Your task to perform on an android device: toggle wifi Image 0: 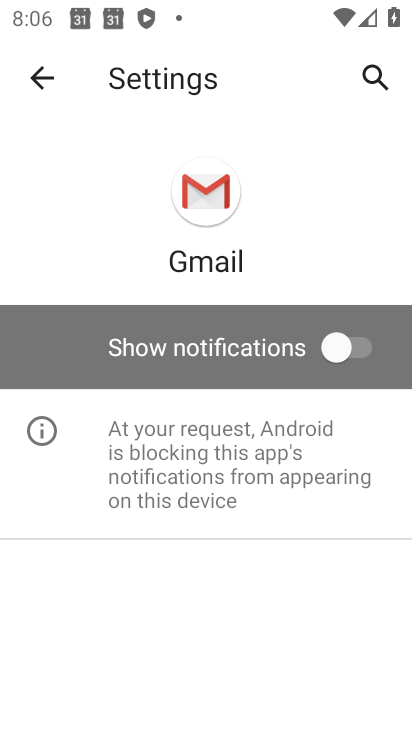
Step 0: press home button
Your task to perform on an android device: toggle wifi Image 1: 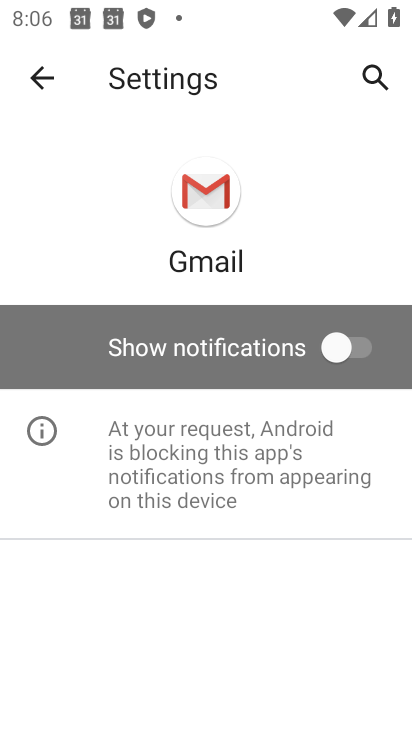
Step 1: press home button
Your task to perform on an android device: toggle wifi Image 2: 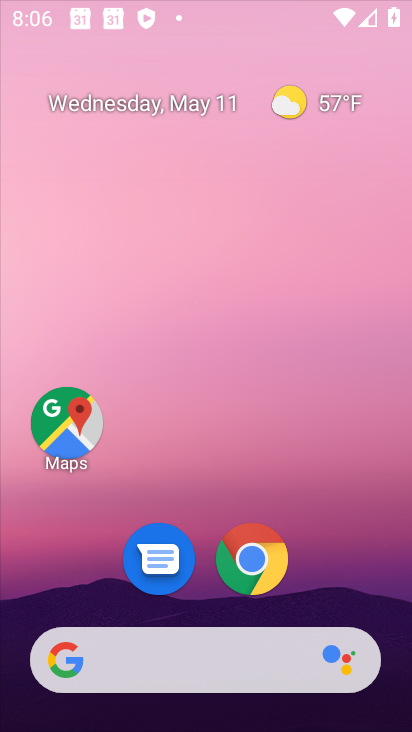
Step 2: press home button
Your task to perform on an android device: toggle wifi Image 3: 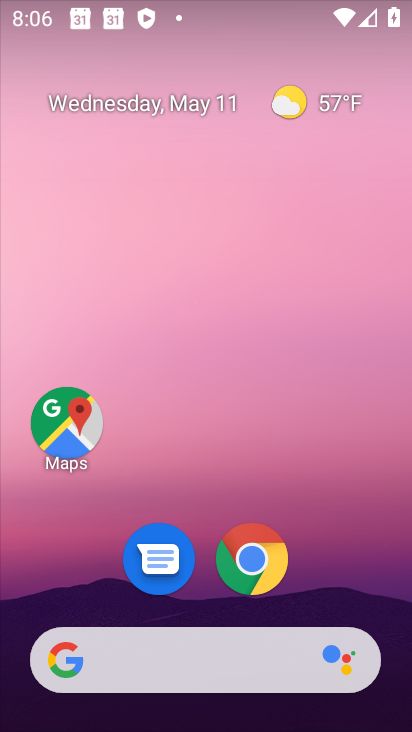
Step 3: press home button
Your task to perform on an android device: toggle wifi Image 4: 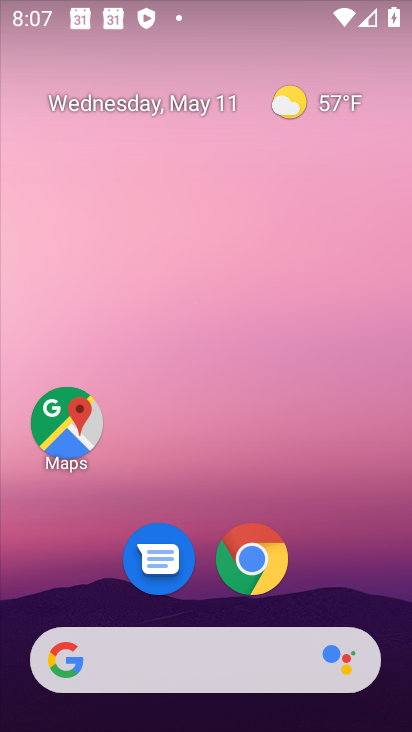
Step 4: drag from (325, 6) to (304, 96)
Your task to perform on an android device: toggle wifi Image 5: 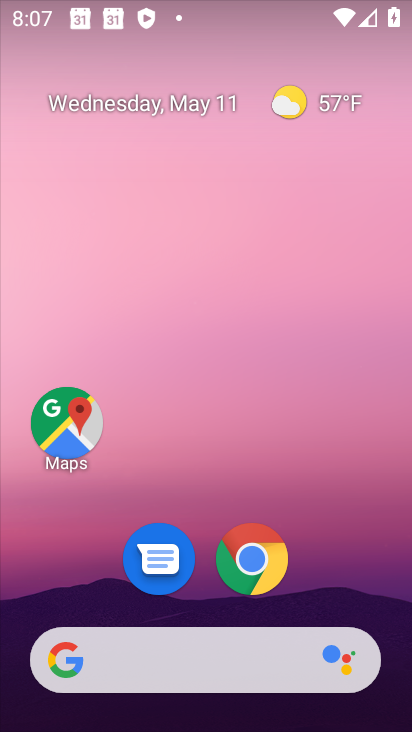
Step 5: drag from (295, 6) to (221, 689)
Your task to perform on an android device: toggle wifi Image 6: 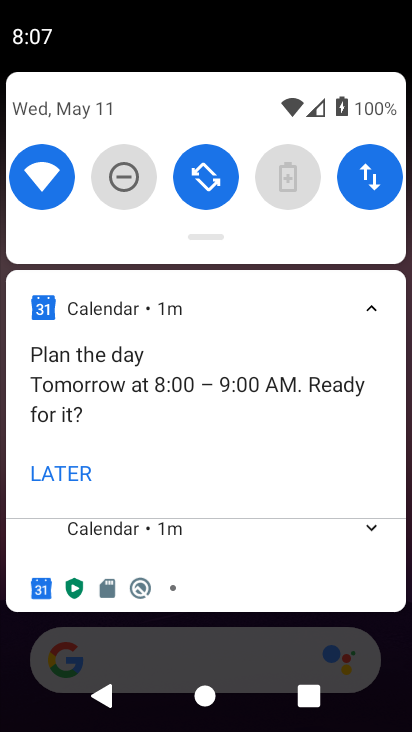
Step 6: click (54, 175)
Your task to perform on an android device: toggle wifi Image 7: 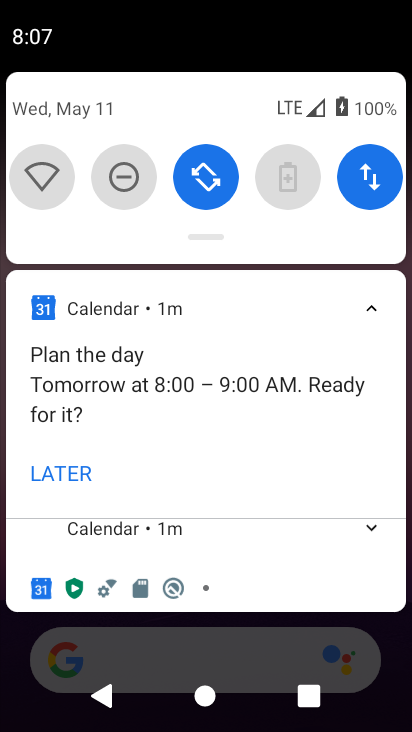
Step 7: task complete